Your task to perform on an android device: Open eBay Image 0: 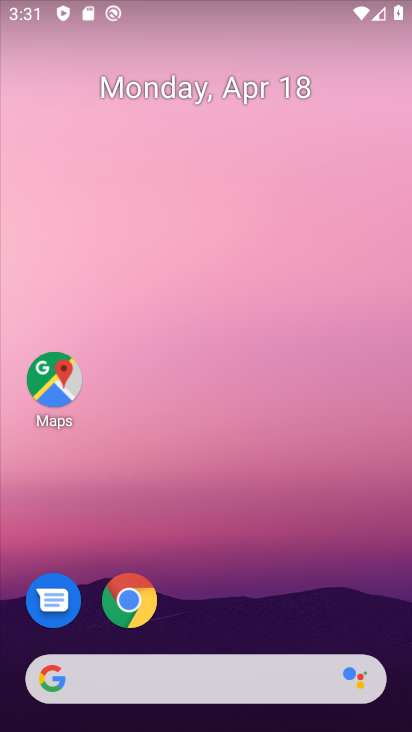
Step 0: drag from (292, 699) to (364, 131)
Your task to perform on an android device: Open eBay Image 1: 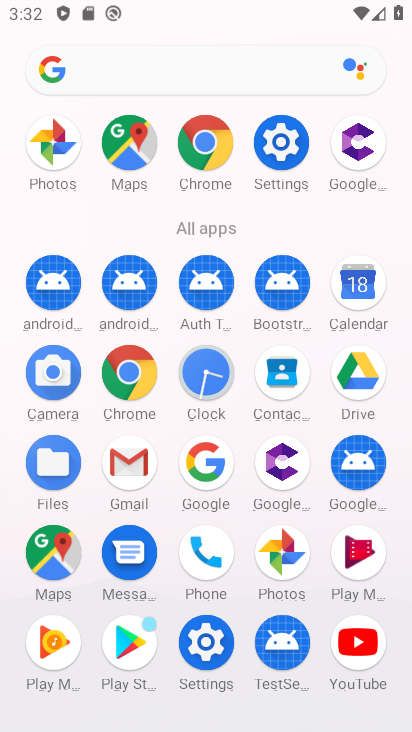
Step 1: click (198, 158)
Your task to perform on an android device: Open eBay Image 2: 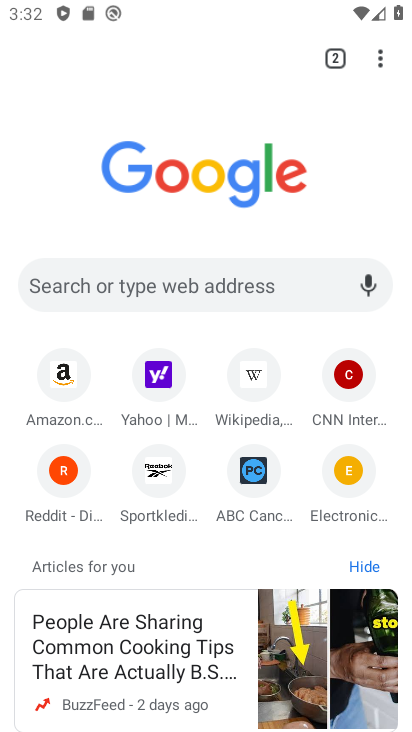
Step 2: click (131, 288)
Your task to perform on an android device: Open eBay Image 3: 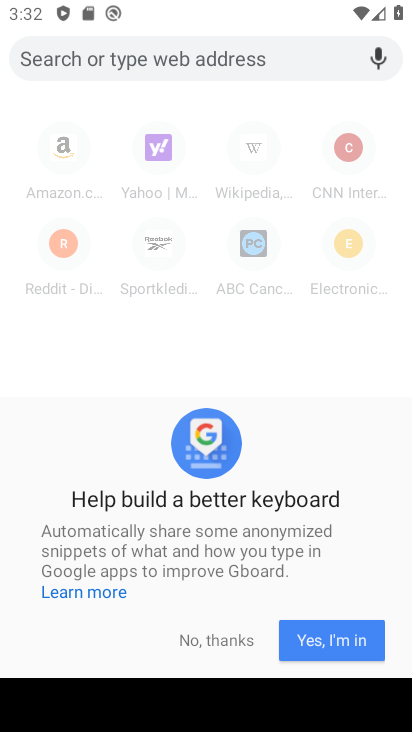
Step 3: click (205, 627)
Your task to perform on an android device: Open eBay Image 4: 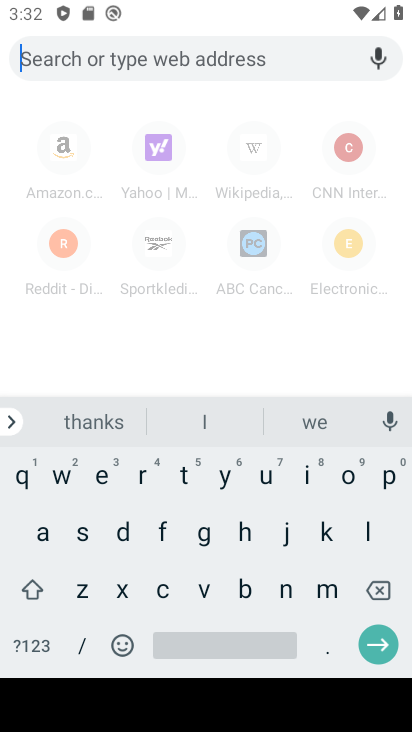
Step 4: click (96, 488)
Your task to perform on an android device: Open eBay Image 5: 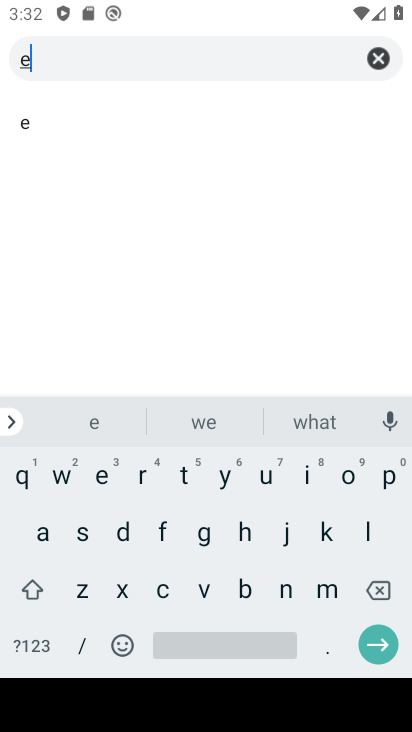
Step 5: click (248, 585)
Your task to perform on an android device: Open eBay Image 6: 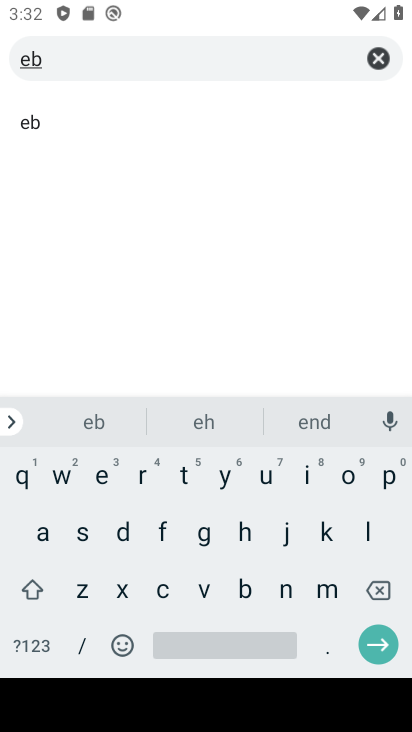
Step 6: click (40, 530)
Your task to perform on an android device: Open eBay Image 7: 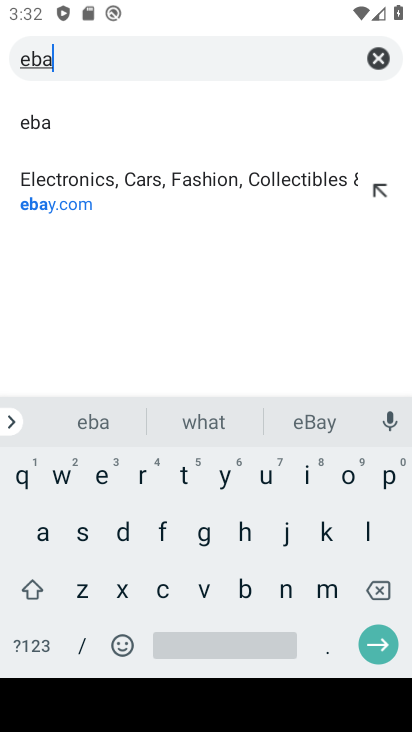
Step 7: click (221, 488)
Your task to perform on an android device: Open eBay Image 8: 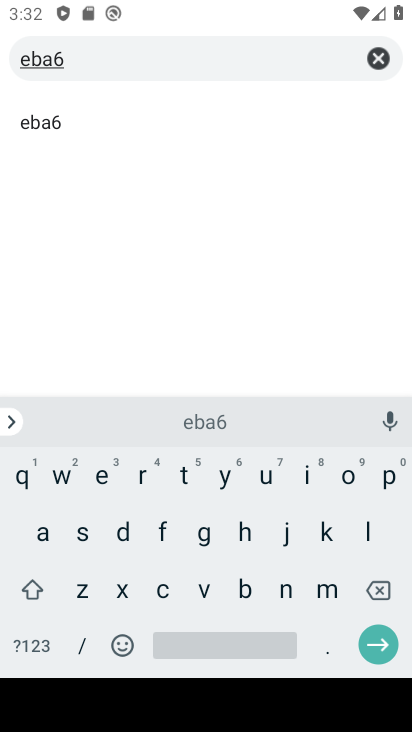
Step 8: click (372, 591)
Your task to perform on an android device: Open eBay Image 9: 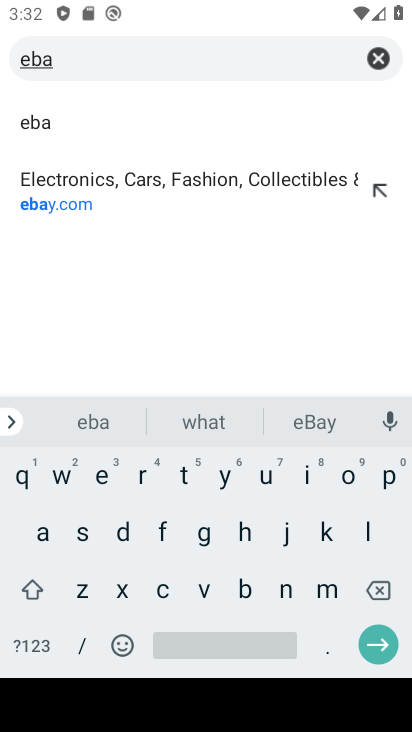
Step 9: click (230, 478)
Your task to perform on an android device: Open eBay Image 10: 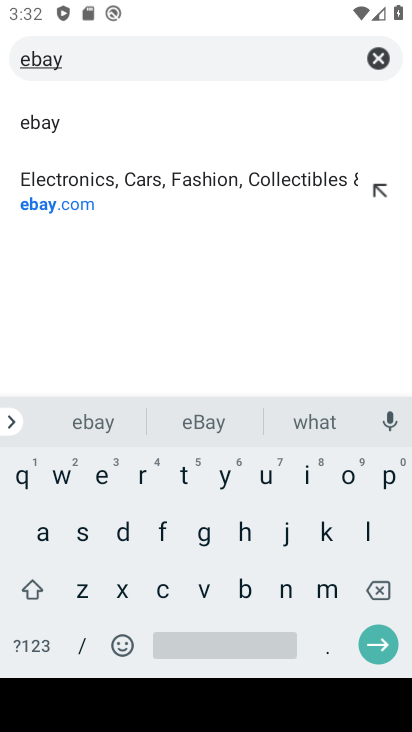
Step 10: click (127, 195)
Your task to perform on an android device: Open eBay Image 11: 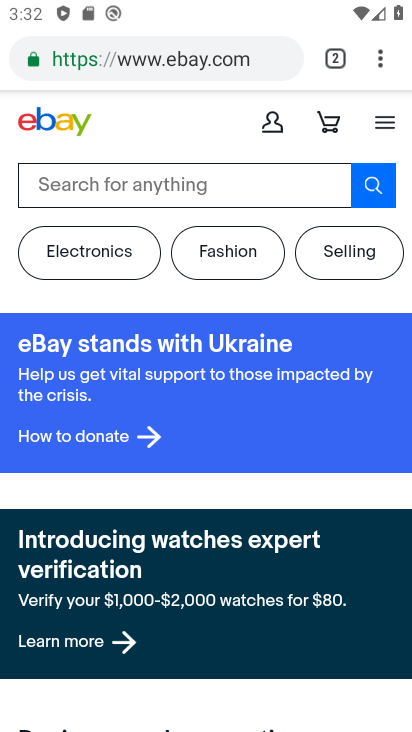
Step 11: task complete